Your task to perform on an android device: toggle improve location accuracy Image 0: 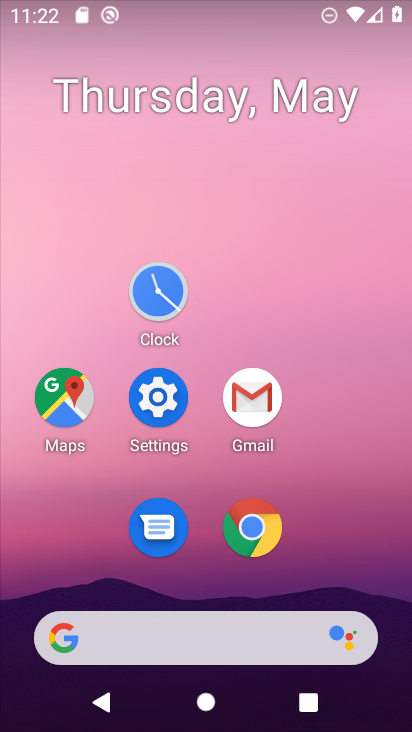
Step 0: click (147, 430)
Your task to perform on an android device: toggle improve location accuracy Image 1: 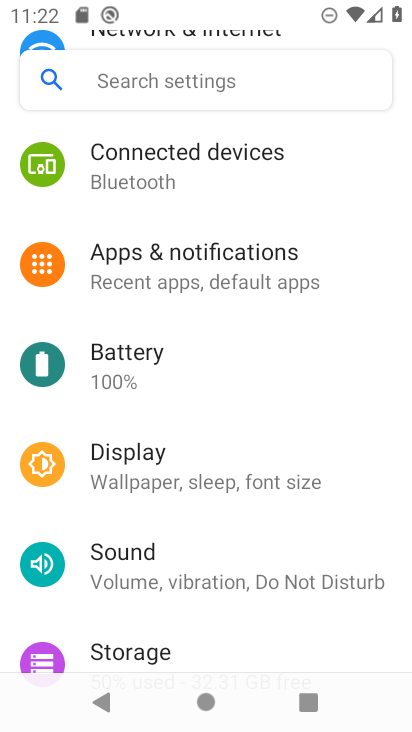
Step 1: drag from (176, 495) to (174, 321)
Your task to perform on an android device: toggle improve location accuracy Image 2: 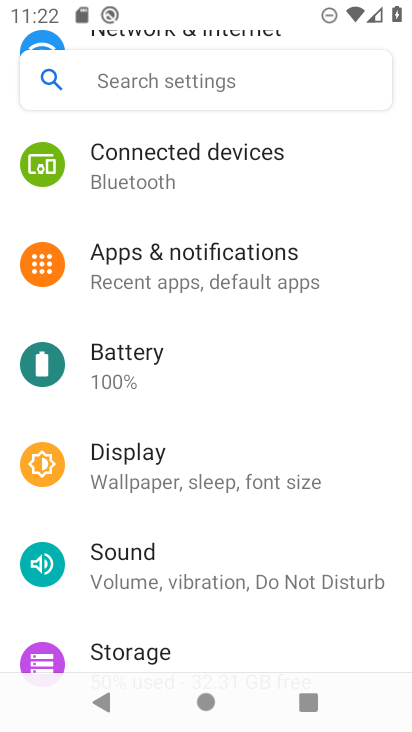
Step 2: drag from (212, 534) to (277, 188)
Your task to perform on an android device: toggle improve location accuracy Image 3: 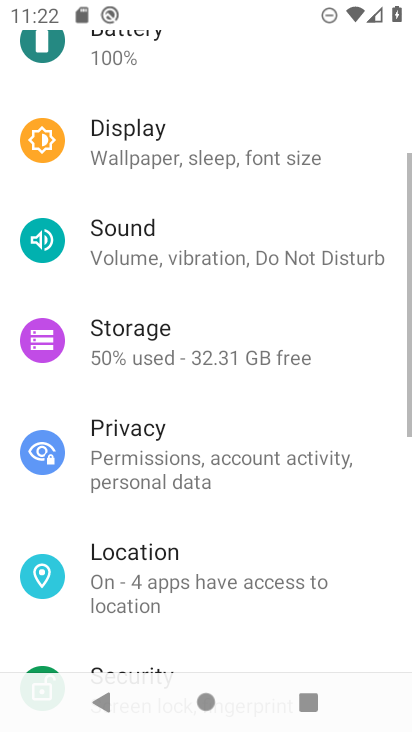
Step 3: drag from (173, 609) to (252, 155)
Your task to perform on an android device: toggle improve location accuracy Image 4: 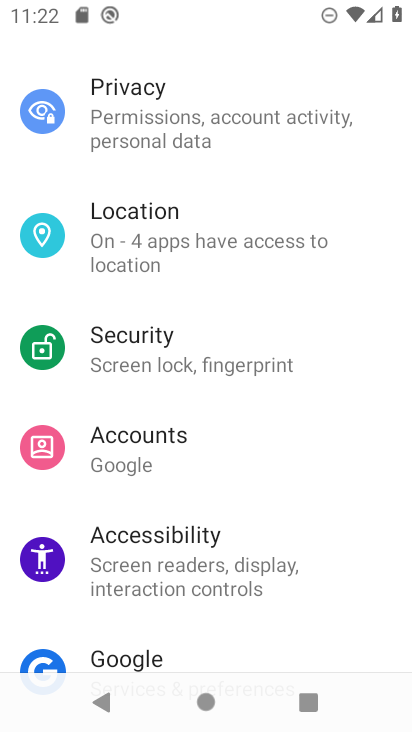
Step 4: click (280, 244)
Your task to perform on an android device: toggle improve location accuracy Image 5: 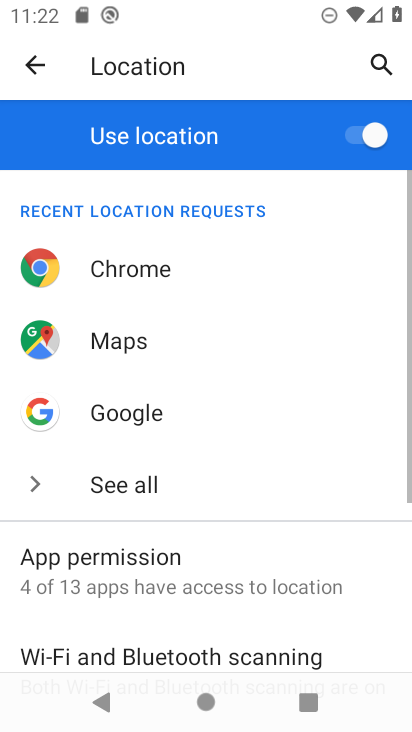
Step 5: drag from (211, 563) to (244, 277)
Your task to perform on an android device: toggle improve location accuracy Image 6: 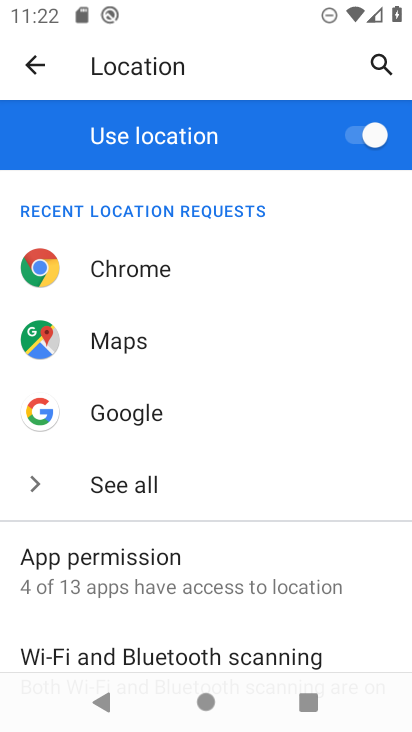
Step 6: click (219, 556)
Your task to perform on an android device: toggle improve location accuracy Image 7: 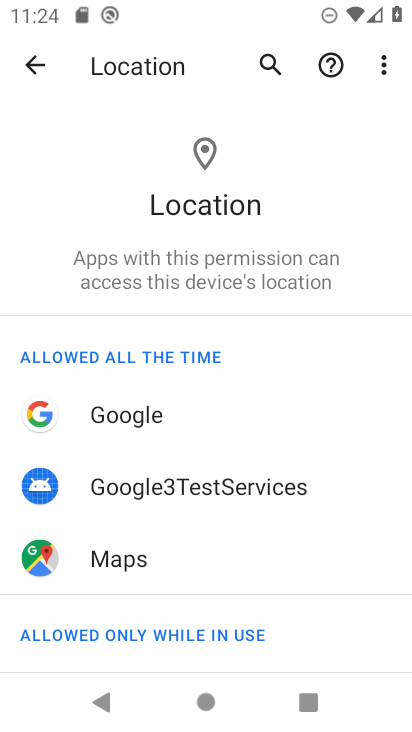
Step 7: drag from (267, 527) to (315, 285)
Your task to perform on an android device: toggle improve location accuracy Image 8: 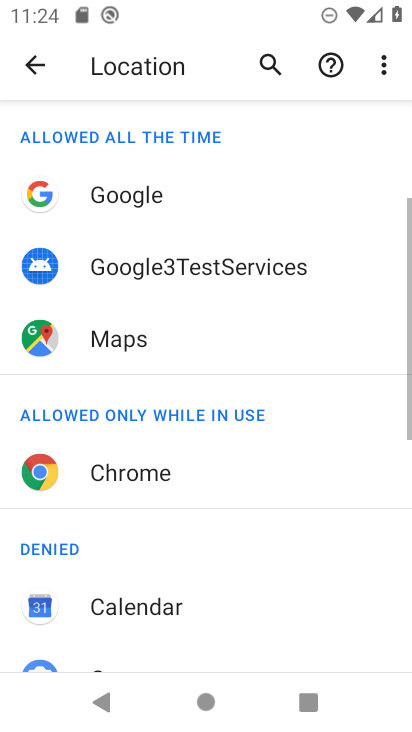
Step 8: drag from (275, 505) to (332, 250)
Your task to perform on an android device: toggle improve location accuracy Image 9: 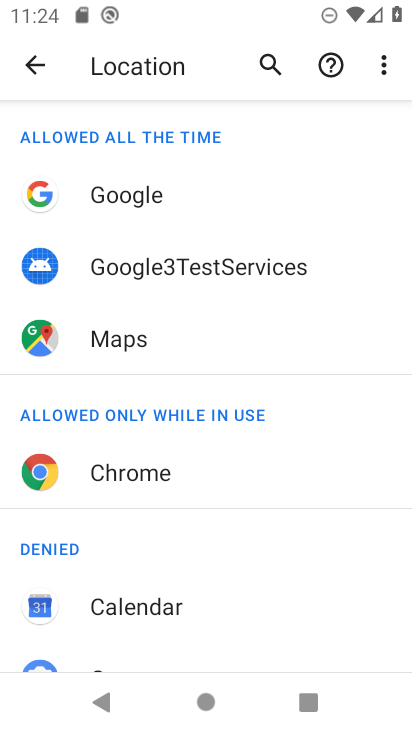
Step 9: drag from (235, 610) to (298, 281)
Your task to perform on an android device: toggle improve location accuracy Image 10: 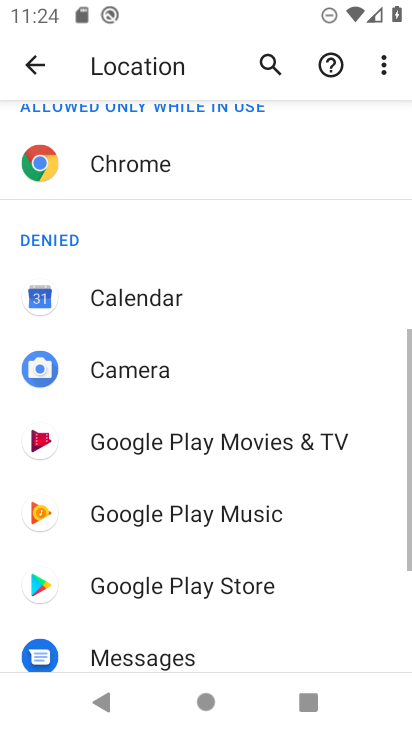
Step 10: click (27, 62)
Your task to perform on an android device: toggle improve location accuracy Image 11: 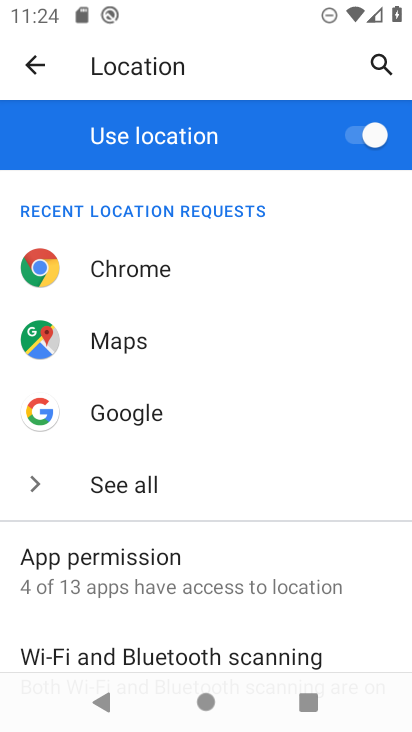
Step 11: drag from (184, 572) to (244, 264)
Your task to perform on an android device: toggle improve location accuracy Image 12: 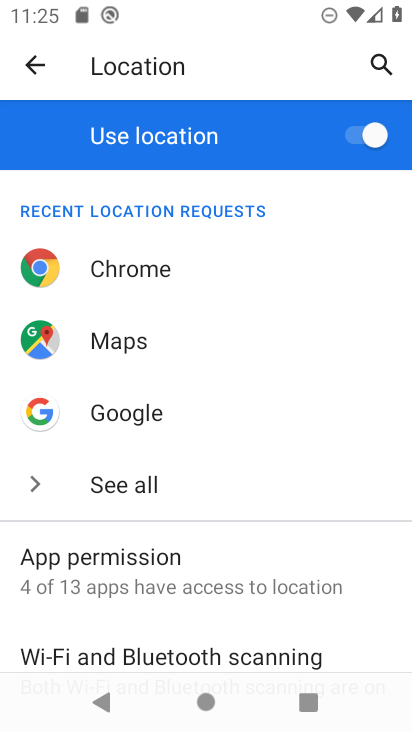
Step 12: drag from (284, 634) to (304, 340)
Your task to perform on an android device: toggle improve location accuracy Image 13: 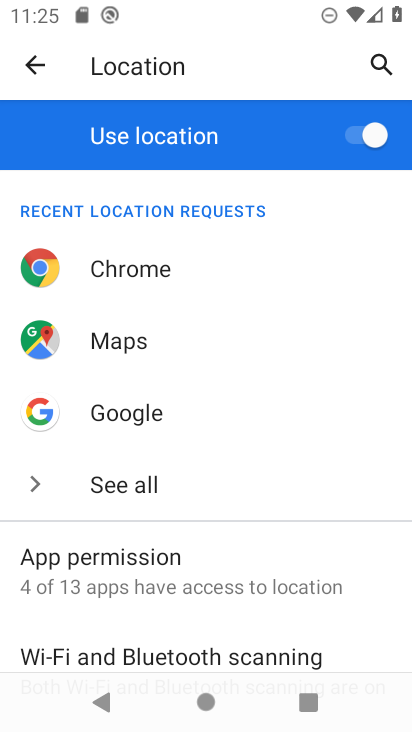
Step 13: drag from (229, 596) to (268, 24)
Your task to perform on an android device: toggle improve location accuracy Image 14: 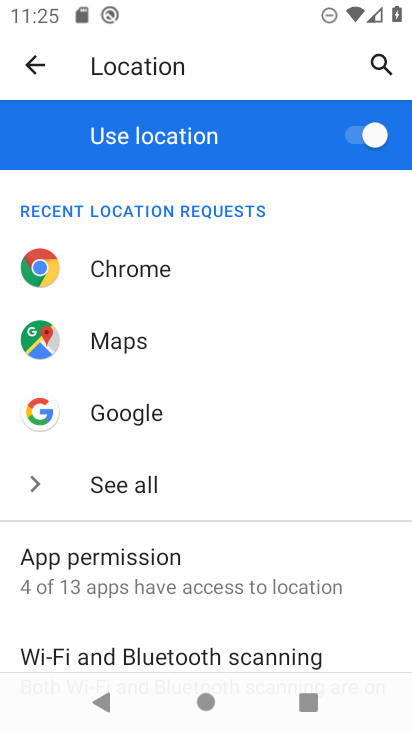
Step 14: drag from (257, 637) to (287, 331)
Your task to perform on an android device: toggle improve location accuracy Image 15: 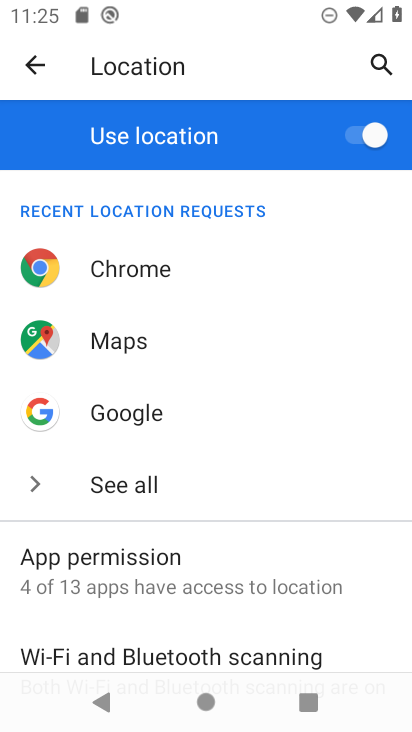
Step 15: click (38, 60)
Your task to perform on an android device: toggle improve location accuracy Image 16: 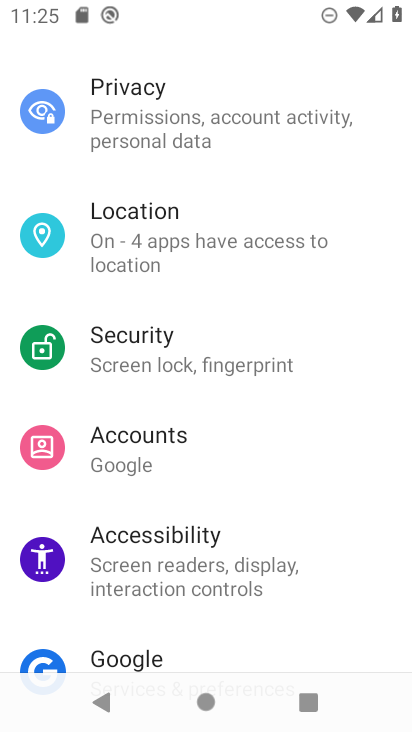
Step 16: click (216, 223)
Your task to perform on an android device: toggle improve location accuracy Image 17: 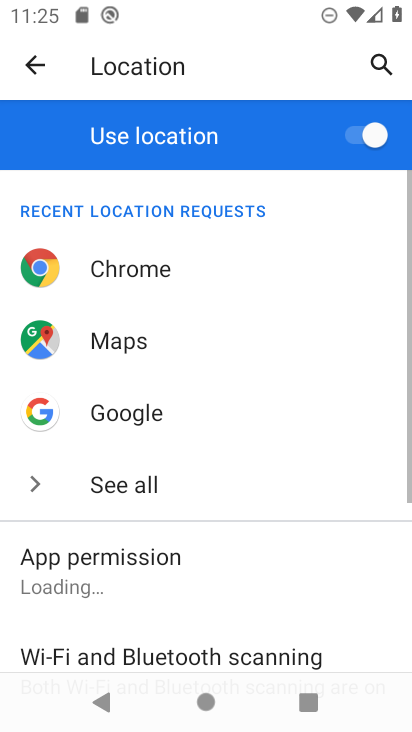
Step 17: drag from (255, 562) to (308, 181)
Your task to perform on an android device: toggle improve location accuracy Image 18: 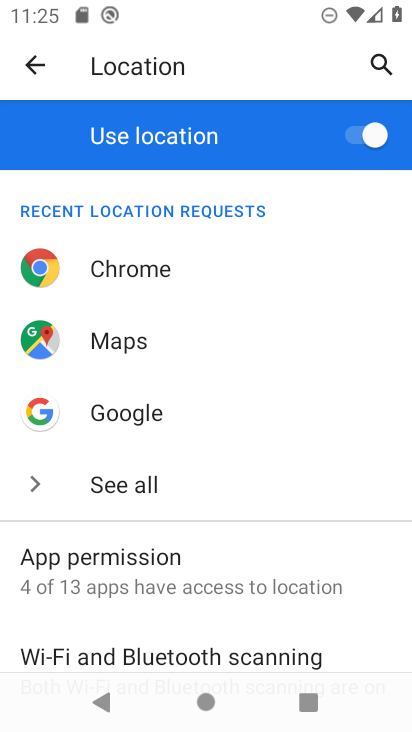
Step 18: drag from (313, 404) to (319, 184)
Your task to perform on an android device: toggle improve location accuracy Image 19: 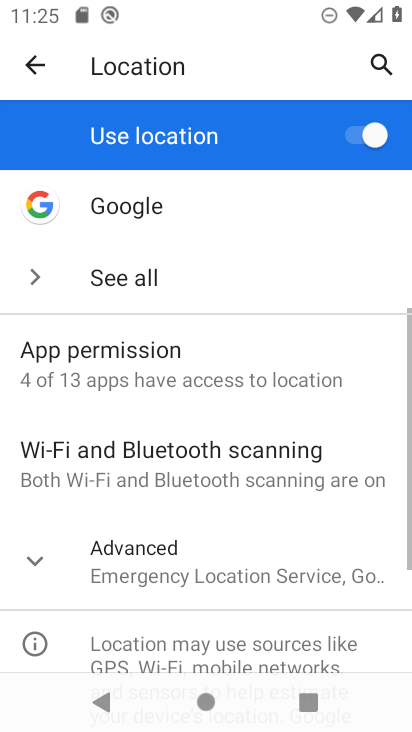
Step 19: drag from (262, 555) to (284, 343)
Your task to perform on an android device: toggle improve location accuracy Image 20: 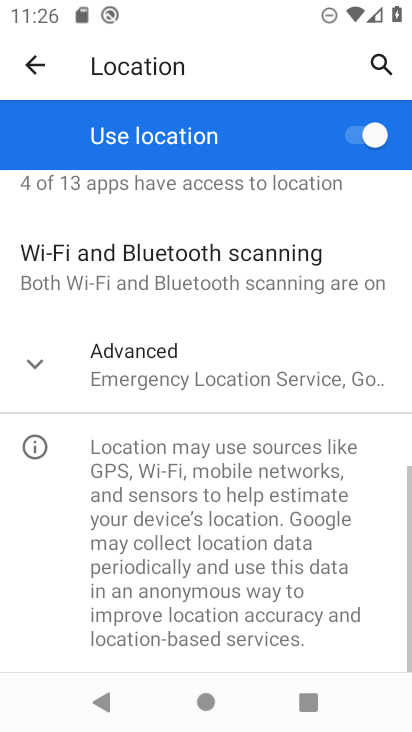
Step 20: drag from (199, 531) to (224, 415)
Your task to perform on an android device: toggle improve location accuracy Image 21: 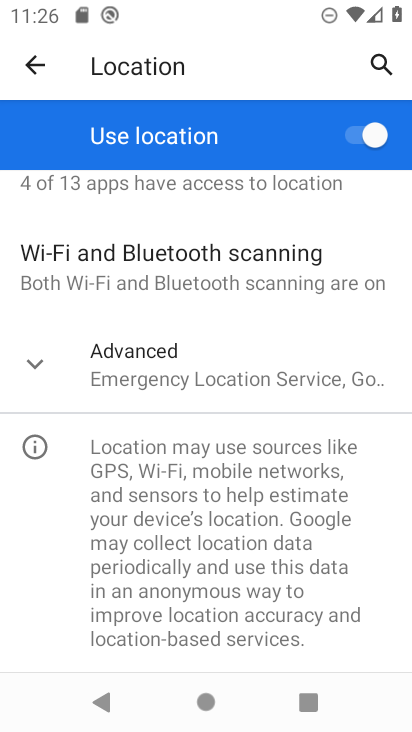
Step 21: click (225, 376)
Your task to perform on an android device: toggle improve location accuracy Image 22: 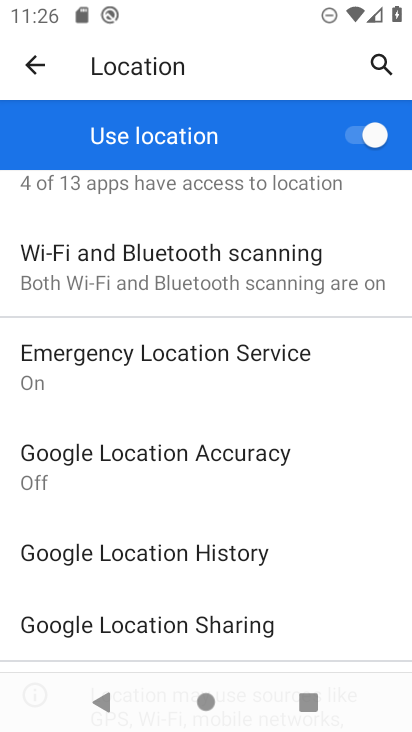
Step 22: click (251, 467)
Your task to perform on an android device: toggle improve location accuracy Image 23: 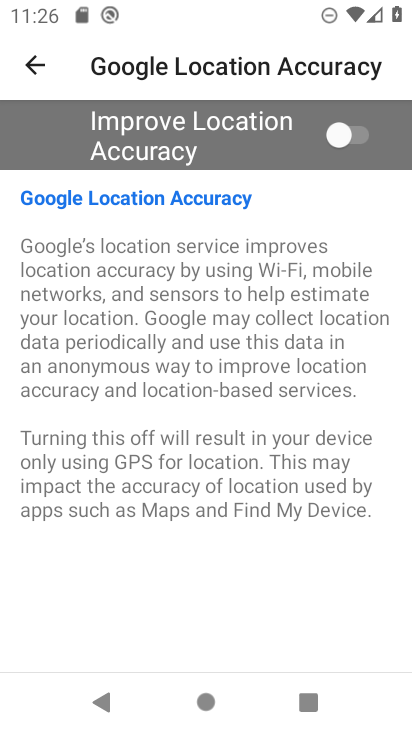
Step 23: click (333, 149)
Your task to perform on an android device: toggle improve location accuracy Image 24: 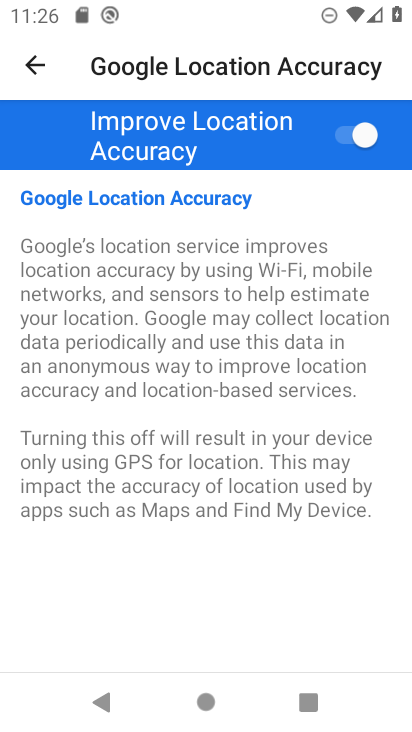
Step 24: task complete